Your task to perform on an android device: turn on notifications settings in the gmail app Image 0: 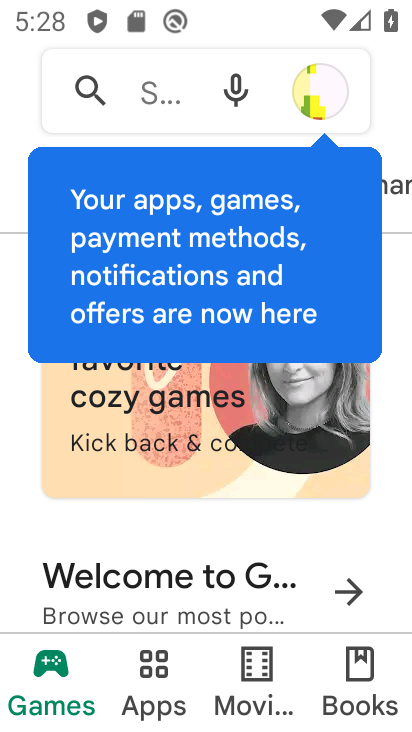
Step 0: press home button
Your task to perform on an android device: turn on notifications settings in the gmail app Image 1: 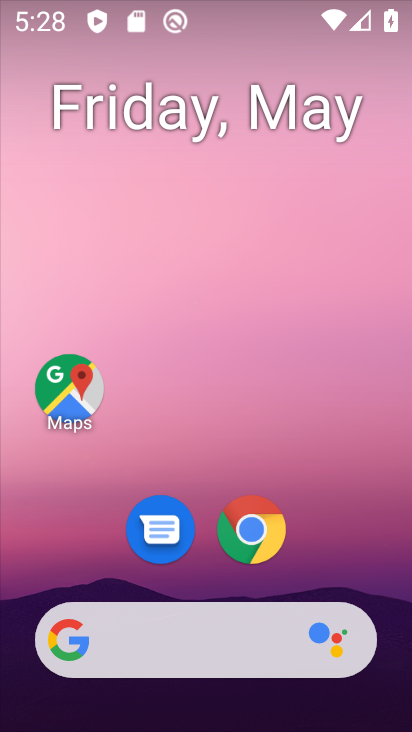
Step 1: drag from (211, 584) to (234, 32)
Your task to perform on an android device: turn on notifications settings in the gmail app Image 2: 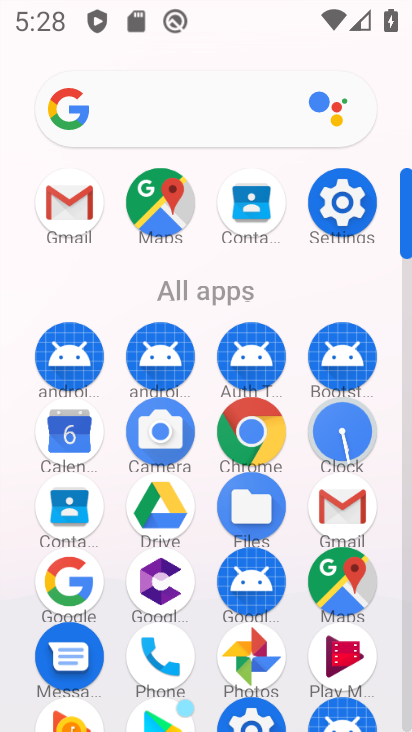
Step 2: click (68, 209)
Your task to perform on an android device: turn on notifications settings in the gmail app Image 3: 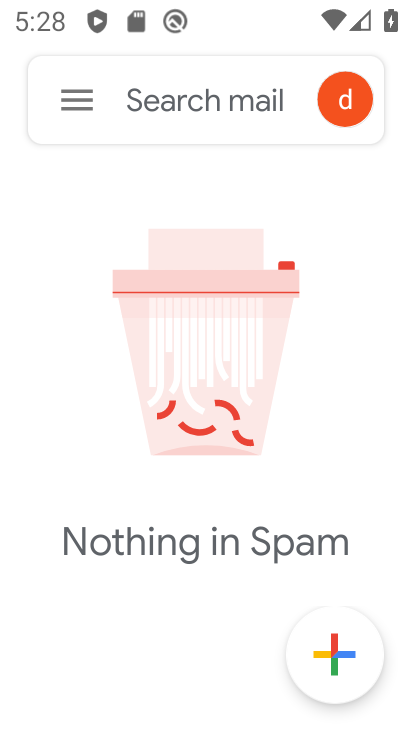
Step 3: click (76, 104)
Your task to perform on an android device: turn on notifications settings in the gmail app Image 4: 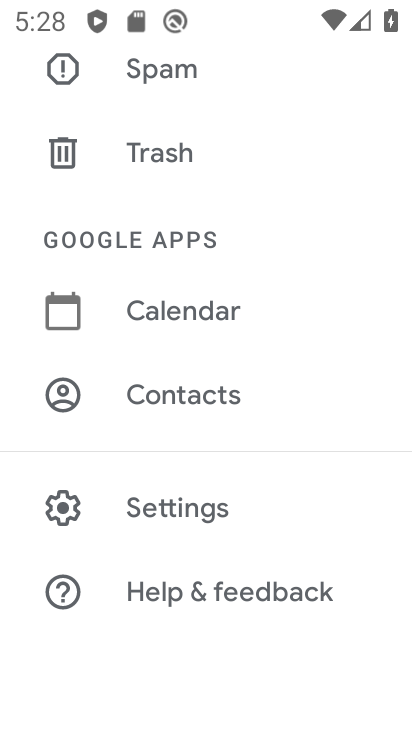
Step 4: click (256, 526)
Your task to perform on an android device: turn on notifications settings in the gmail app Image 5: 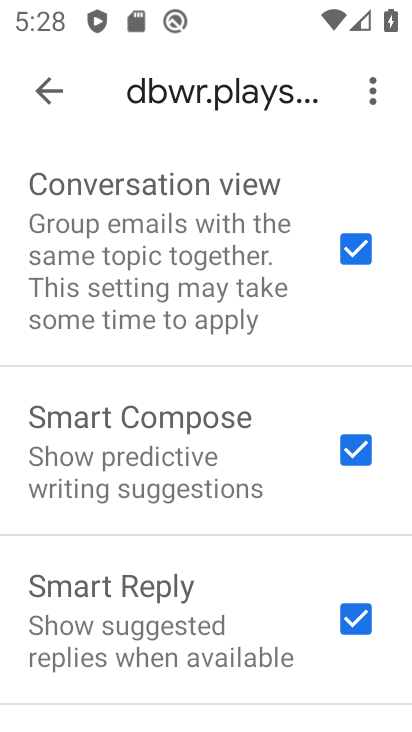
Step 5: drag from (217, 597) to (224, 327)
Your task to perform on an android device: turn on notifications settings in the gmail app Image 6: 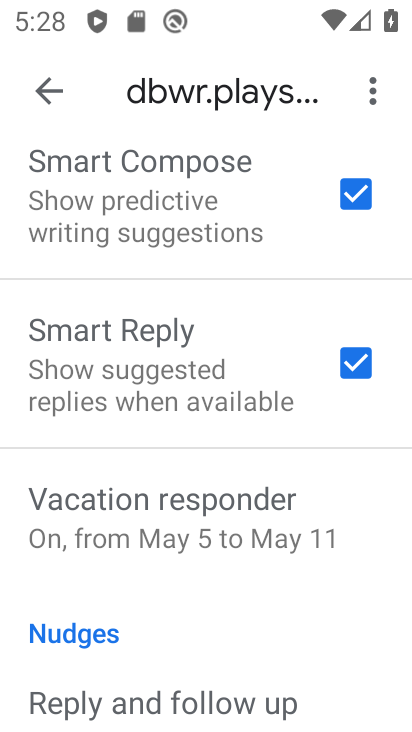
Step 6: drag from (183, 271) to (221, 713)
Your task to perform on an android device: turn on notifications settings in the gmail app Image 7: 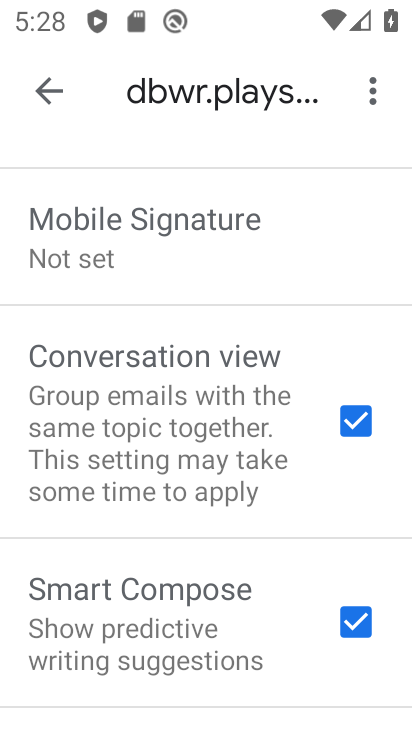
Step 7: drag from (122, 285) to (157, 552)
Your task to perform on an android device: turn on notifications settings in the gmail app Image 8: 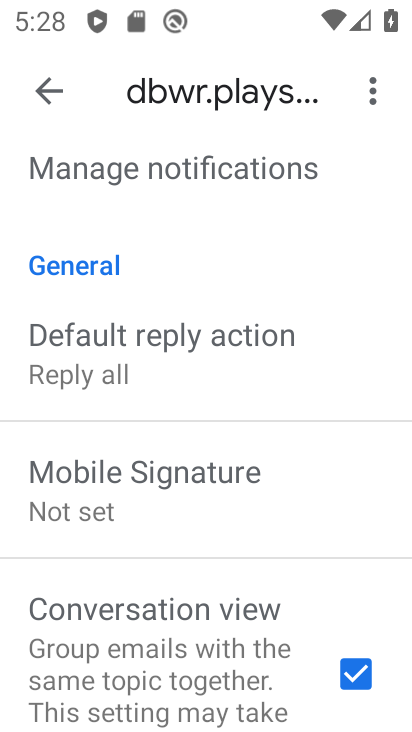
Step 8: drag from (146, 212) to (219, 530)
Your task to perform on an android device: turn on notifications settings in the gmail app Image 9: 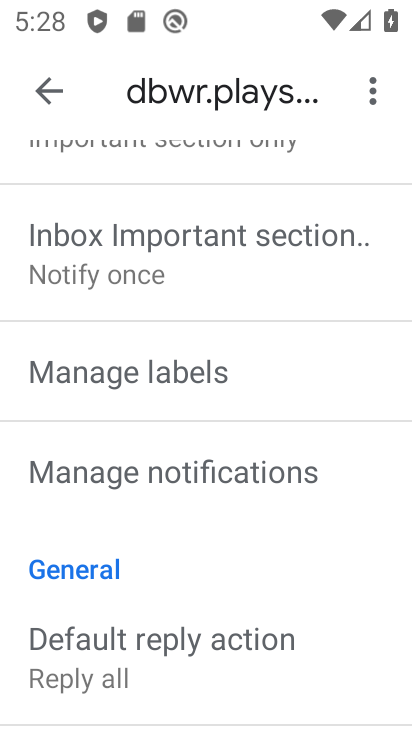
Step 9: drag from (152, 326) to (208, 631)
Your task to perform on an android device: turn on notifications settings in the gmail app Image 10: 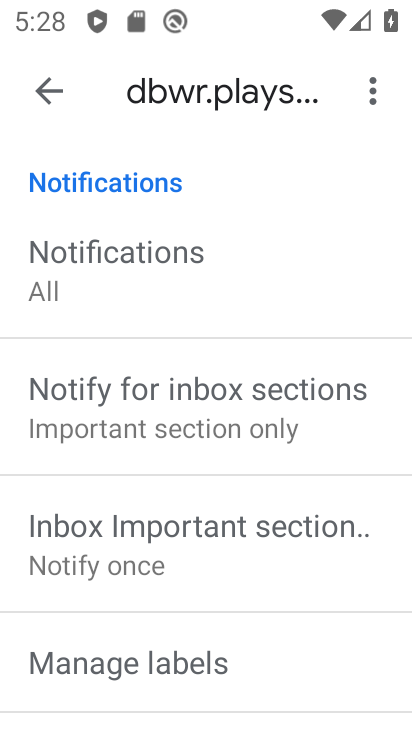
Step 10: click (130, 289)
Your task to perform on an android device: turn on notifications settings in the gmail app Image 11: 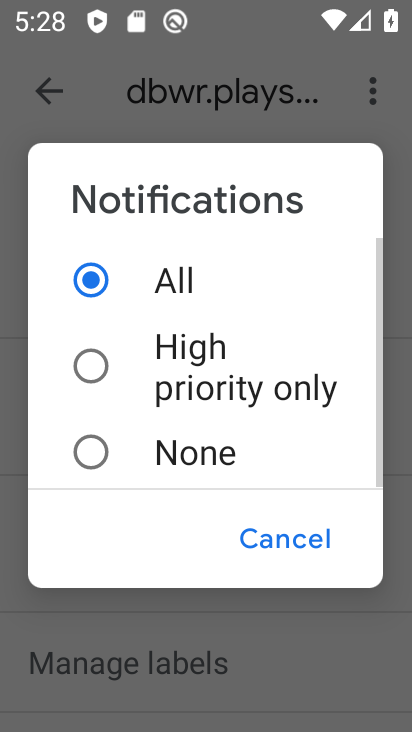
Step 11: task complete